Your task to perform on an android device: Search for Italian restaurants on Maps Image 0: 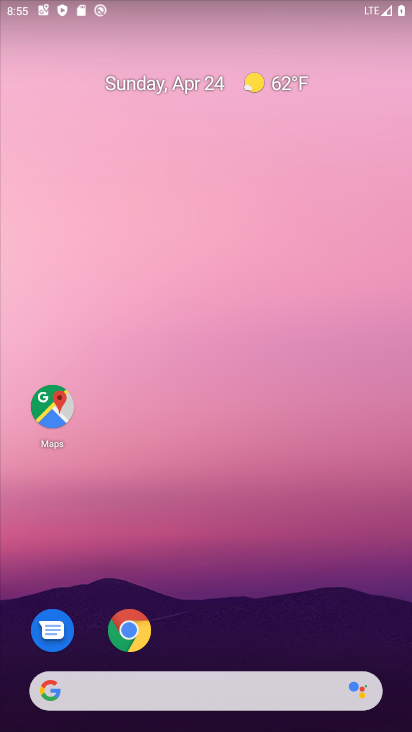
Step 0: drag from (278, 496) to (266, 1)
Your task to perform on an android device: Search for Italian restaurants on Maps Image 1: 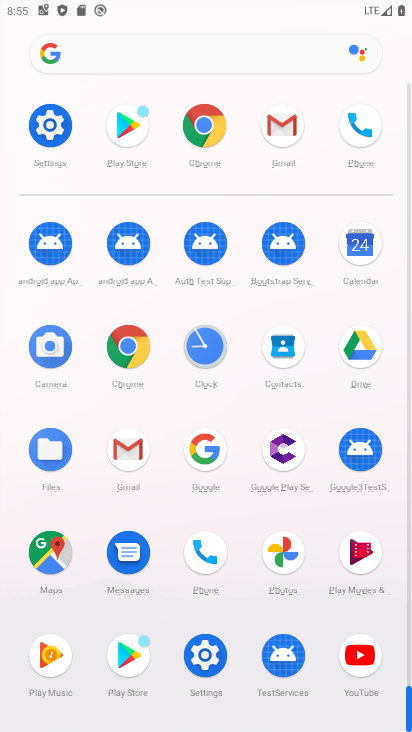
Step 1: drag from (1, 436) to (10, 303)
Your task to perform on an android device: Search for Italian restaurants on Maps Image 2: 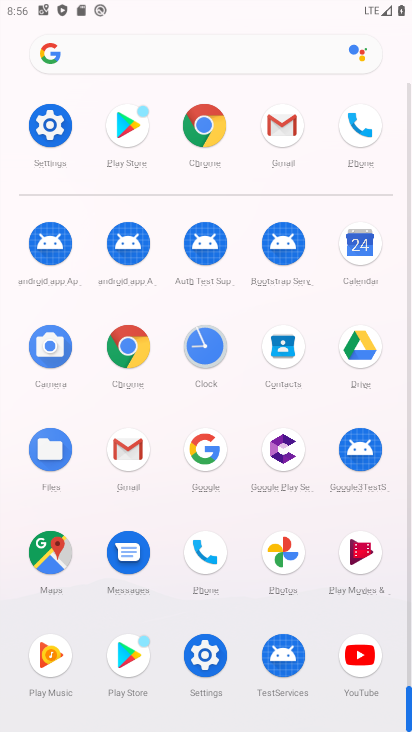
Step 2: drag from (0, 641) to (25, 389)
Your task to perform on an android device: Search for Italian restaurants on Maps Image 3: 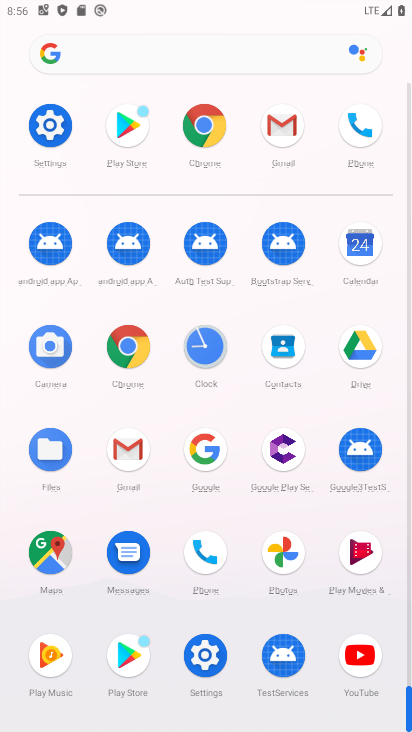
Step 3: click (47, 545)
Your task to perform on an android device: Search for Italian restaurants on Maps Image 4: 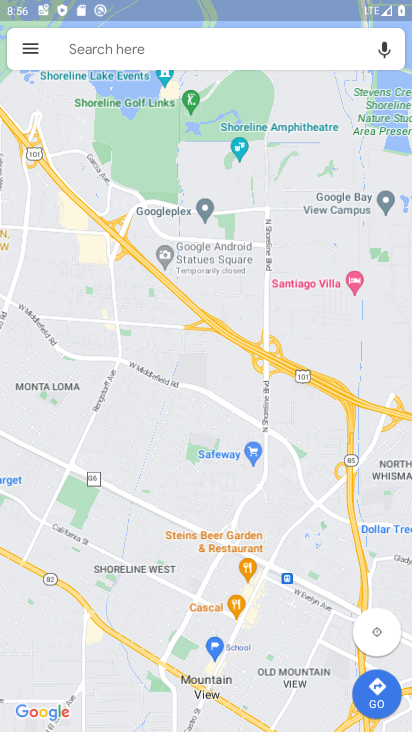
Step 4: click (244, 37)
Your task to perform on an android device: Search for Italian restaurants on Maps Image 5: 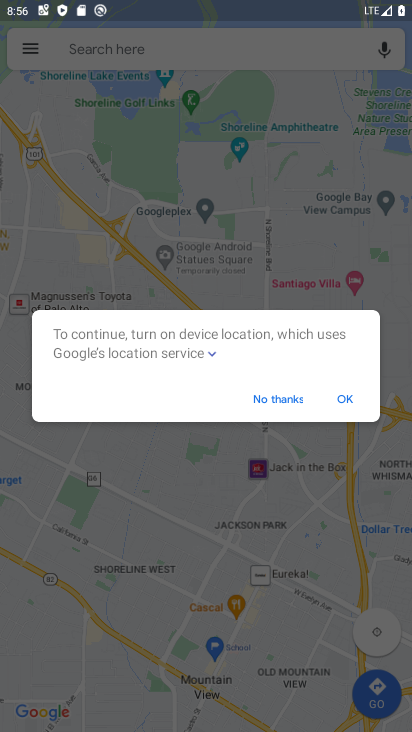
Step 5: click (341, 398)
Your task to perform on an android device: Search for Italian restaurants on Maps Image 6: 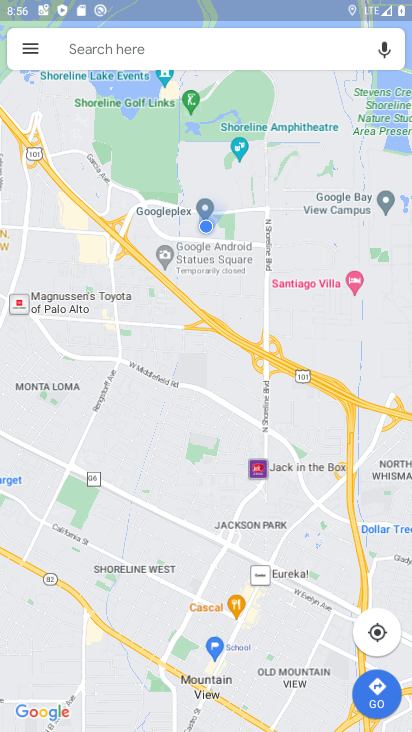
Step 6: click (190, 48)
Your task to perform on an android device: Search for Italian restaurants on Maps Image 7: 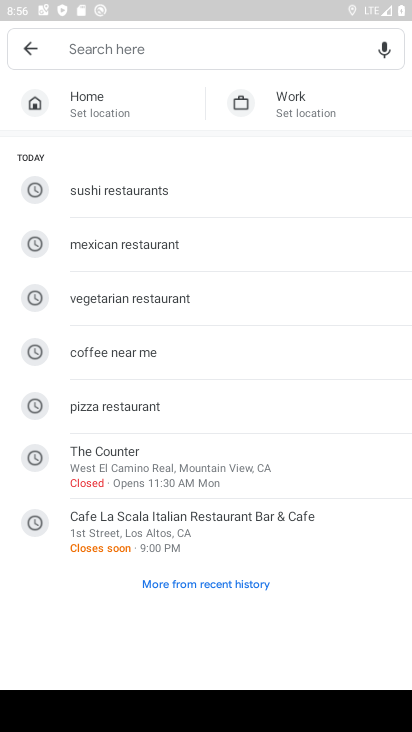
Step 7: type "Italian restaurants "
Your task to perform on an android device: Search for Italian restaurants on Maps Image 8: 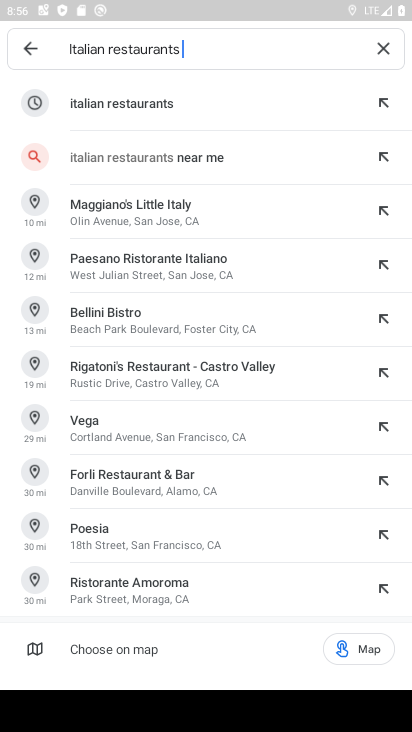
Step 8: click (119, 100)
Your task to perform on an android device: Search for Italian restaurants on Maps Image 9: 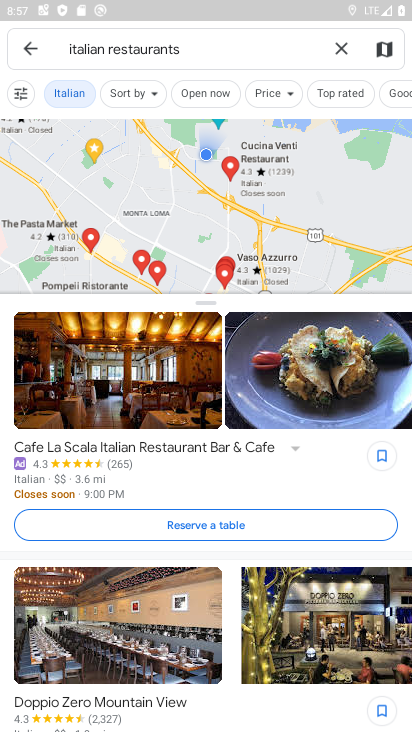
Step 9: task complete